Your task to perform on an android device: Show me productivity apps on the Play Store Image 0: 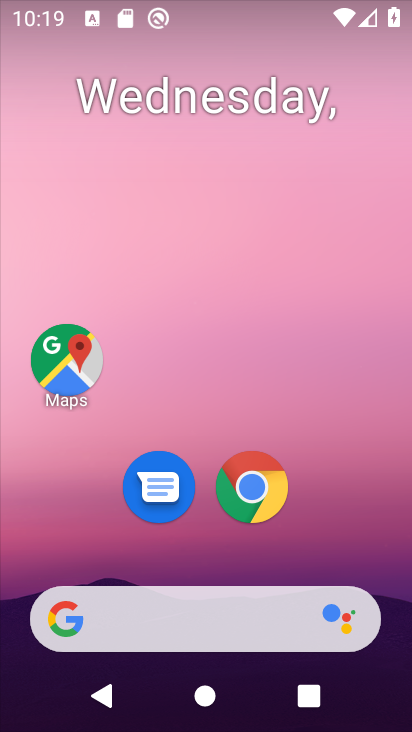
Step 0: press home button
Your task to perform on an android device: Show me productivity apps on the Play Store Image 1: 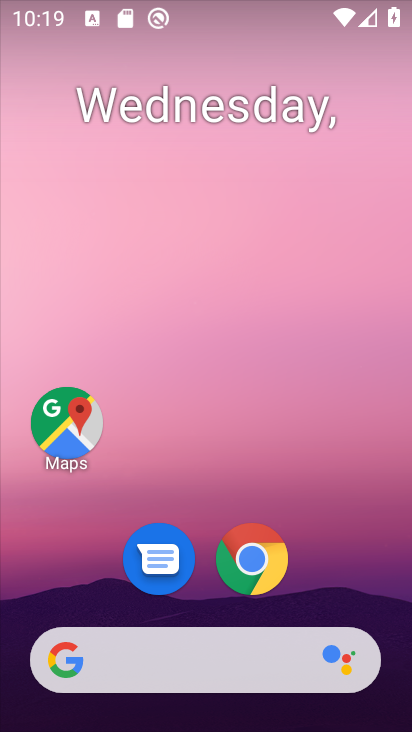
Step 1: drag from (230, 639) to (244, 239)
Your task to perform on an android device: Show me productivity apps on the Play Store Image 2: 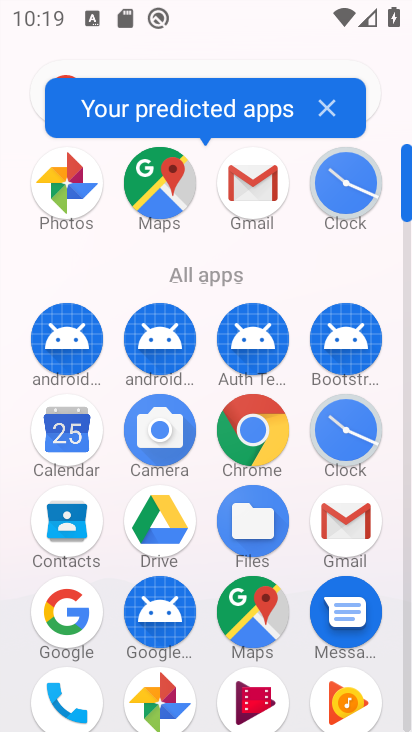
Step 2: drag from (216, 424) to (231, 159)
Your task to perform on an android device: Show me productivity apps on the Play Store Image 3: 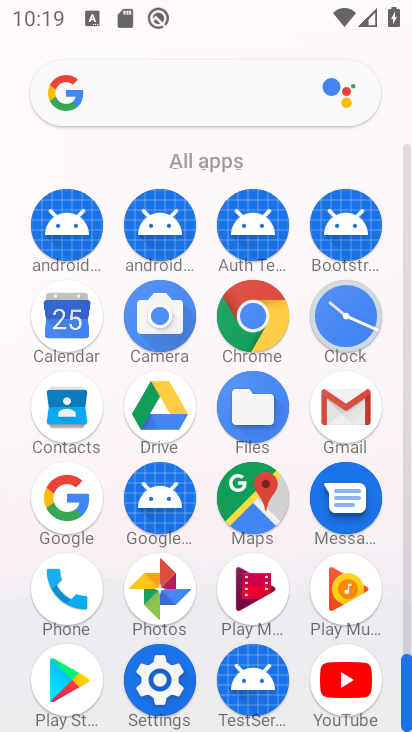
Step 3: click (87, 681)
Your task to perform on an android device: Show me productivity apps on the Play Store Image 4: 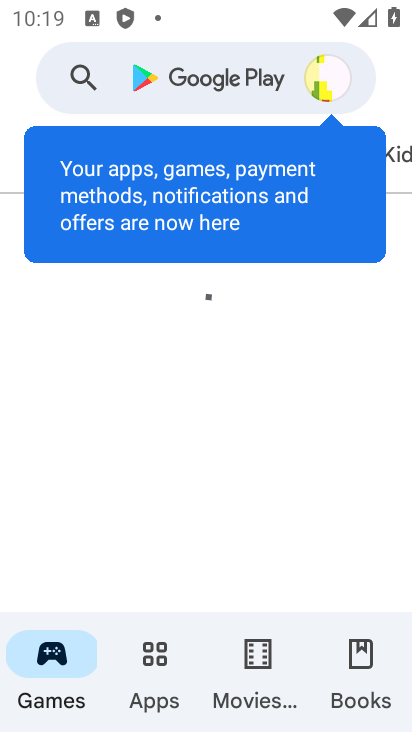
Step 4: click (197, 84)
Your task to perform on an android device: Show me productivity apps on the Play Store Image 5: 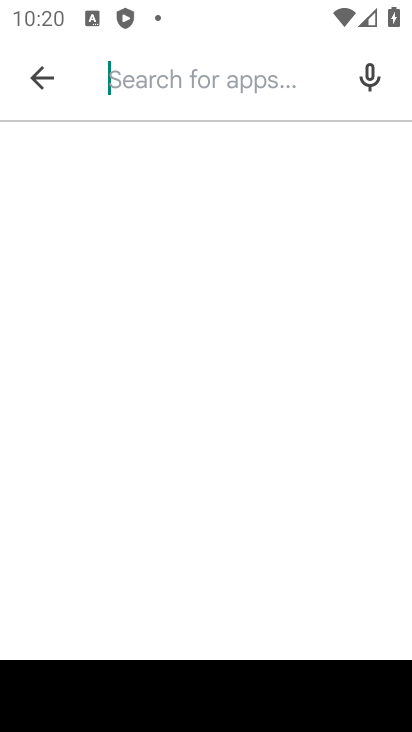
Step 5: click (256, 102)
Your task to perform on an android device: Show me productivity apps on the Play Store Image 6: 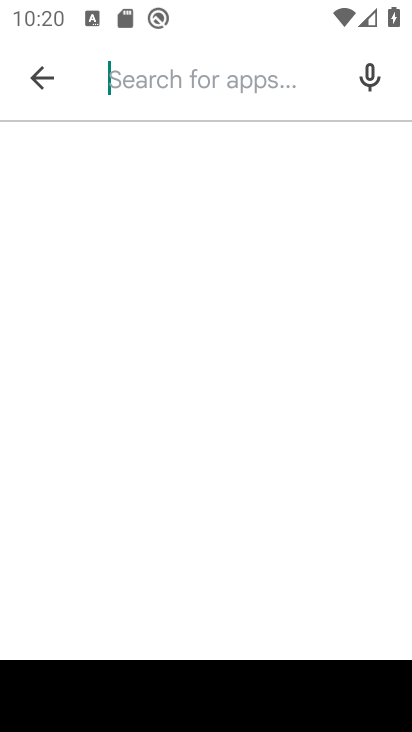
Step 6: type "productivity aaps"
Your task to perform on an android device: Show me productivity apps on the Play Store Image 7: 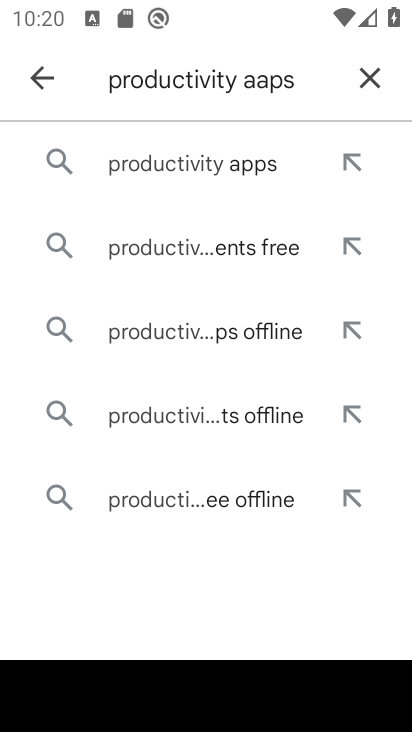
Step 7: click (210, 175)
Your task to perform on an android device: Show me productivity apps on the Play Store Image 8: 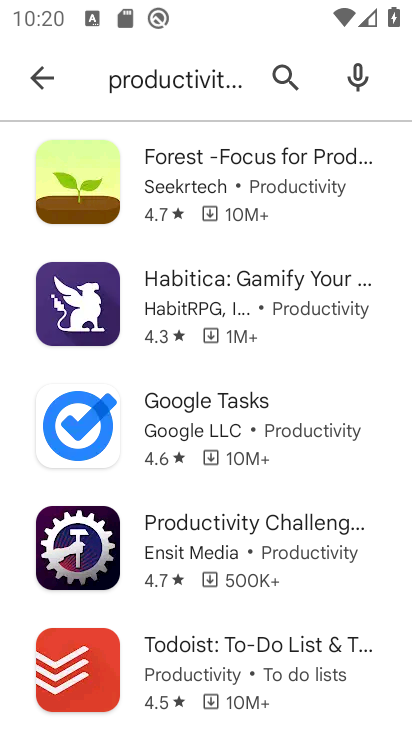
Step 8: task complete